Your task to perform on an android device: create a new album in the google photos Image 0: 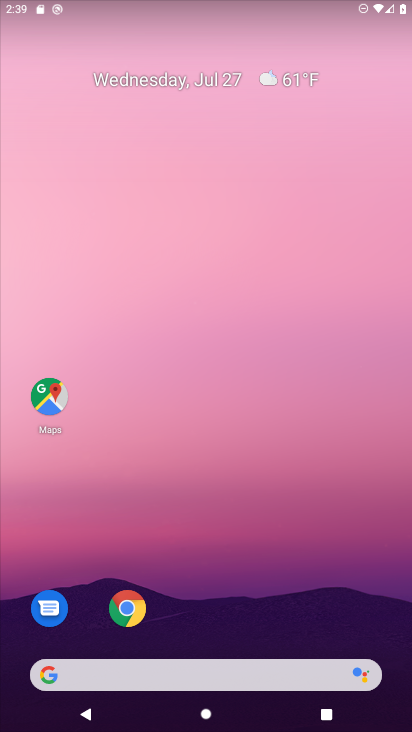
Step 0: drag from (207, 634) to (78, 16)
Your task to perform on an android device: create a new album in the google photos Image 1: 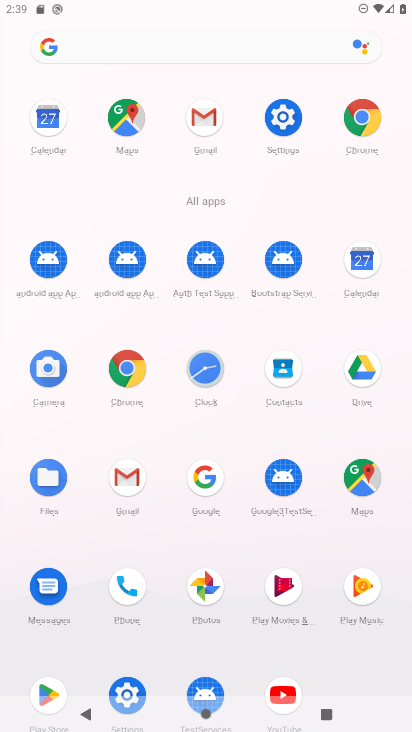
Step 1: click (204, 583)
Your task to perform on an android device: create a new album in the google photos Image 2: 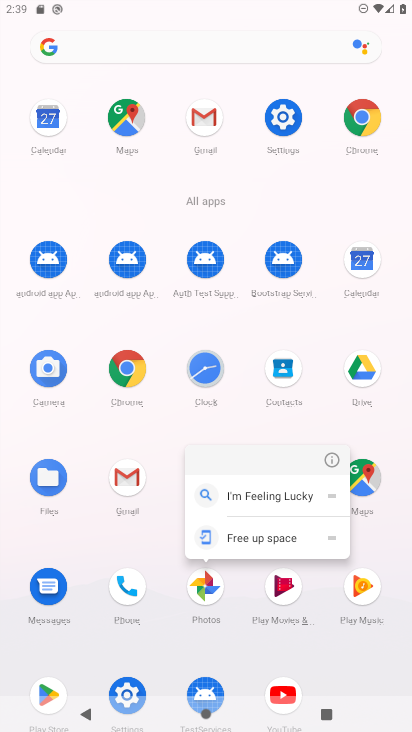
Step 2: click (203, 584)
Your task to perform on an android device: create a new album in the google photos Image 3: 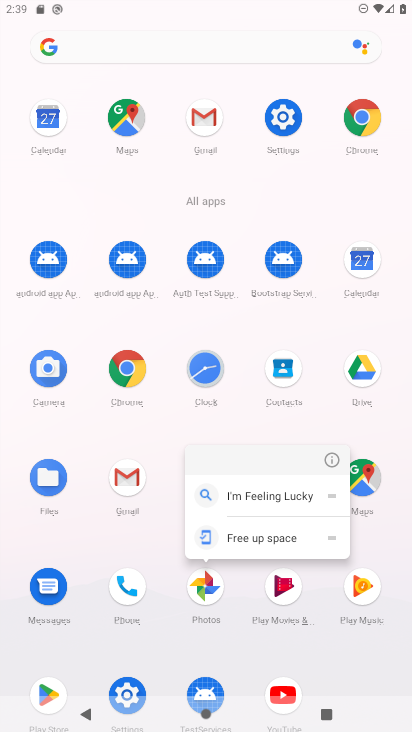
Step 3: click (203, 584)
Your task to perform on an android device: create a new album in the google photos Image 4: 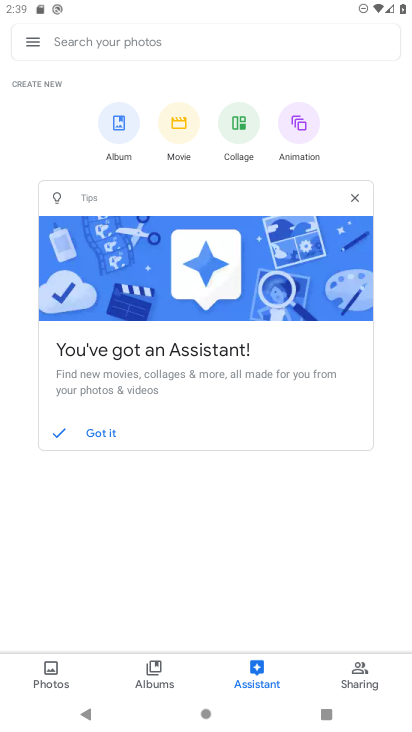
Step 4: click (154, 684)
Your task to perform on an android device: create a new album in the google photos Image 5: 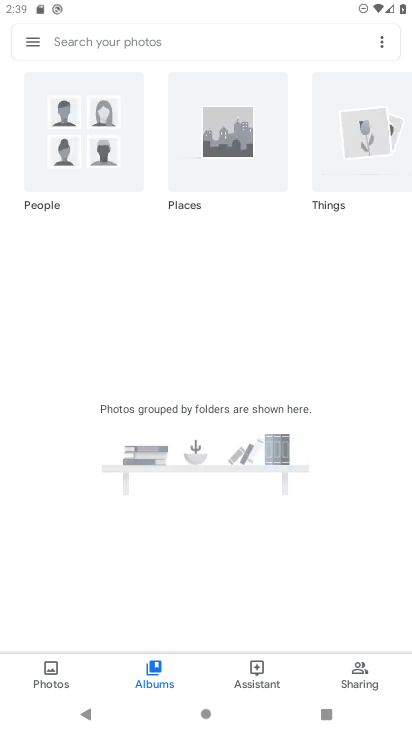
Step 5: click (45, 666)
Your task to perform on an android device: create a new album in the google photos Image 6: 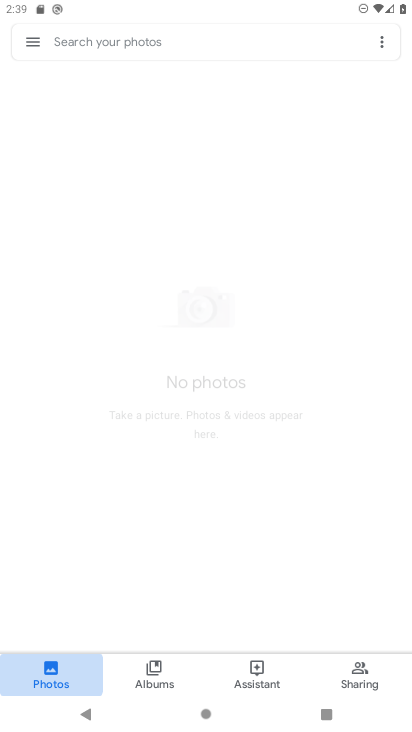
Step 6: click (47, 675)
Your task to perform on an android device: create a new album in the google photos Image 7: 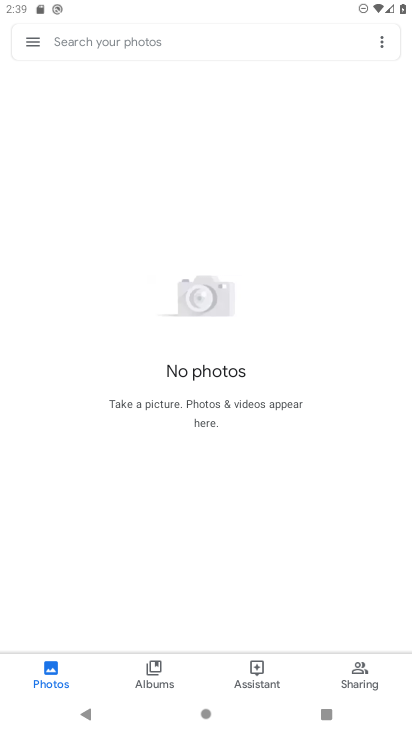
Step 7: task complete